Your task to perform on an android device: turn off priority inbox in the gmail app Image 0: 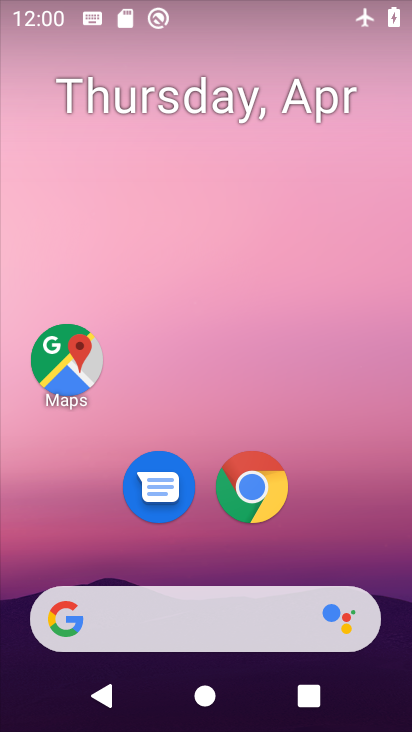
Step 0: drag from (246, 619) to (190, 127)
Your task to perform on an android device: turn off priority inbox in the gmail app Image 1: 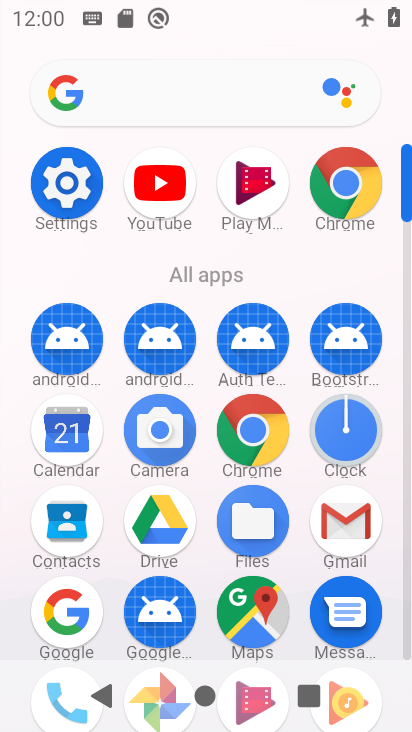
Step 1: click (340, 535)
Your task to perform on an android device: turn off priority inbox in the gmail app Image 2: 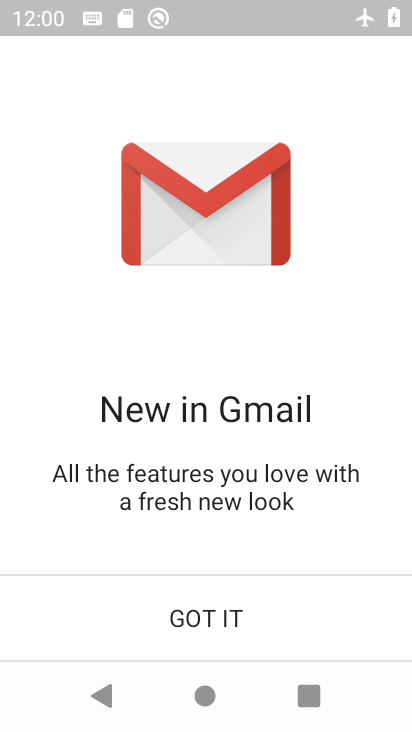
Step 2: click (221, 603)
Your task to perform on an android device: turn off priority inbox in the gmail app Image 3: 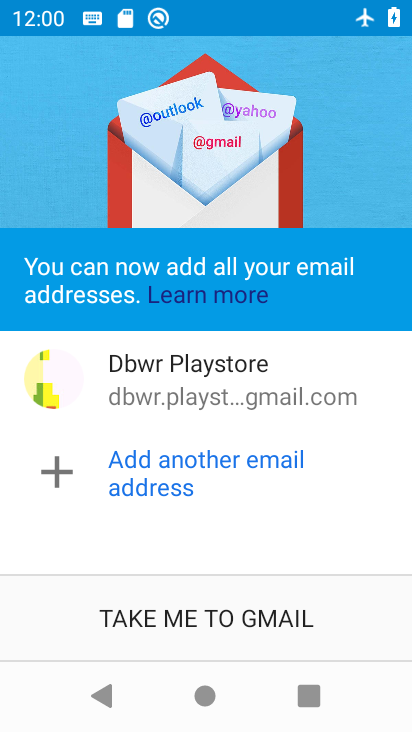
Step 3: click (224, 602)
Your task to perform on an android device: turn off priority inbox in the gmail app Image 4: 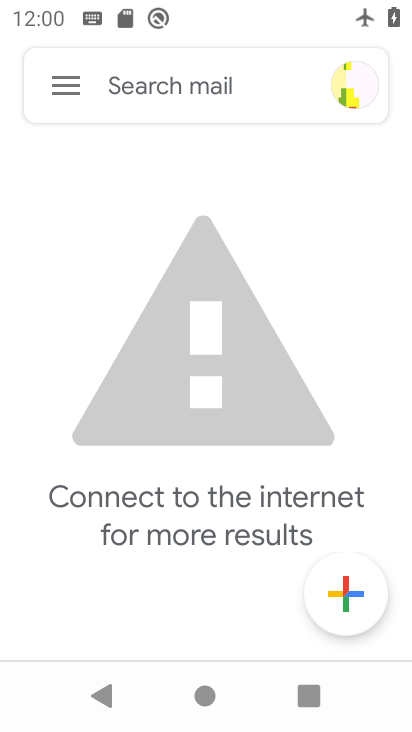
Step 4: click (84, 81)
Your task to perform on an android device: turn off priority inbox in the gmail app Image 5: 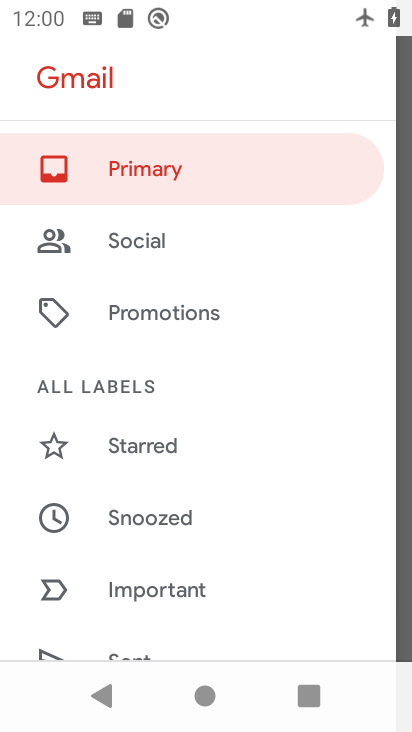
Step 5: drag from (149, 546) to (259, 260)
Your task to perform on an android device: turn off priority inbox in the gmail app Image 6: 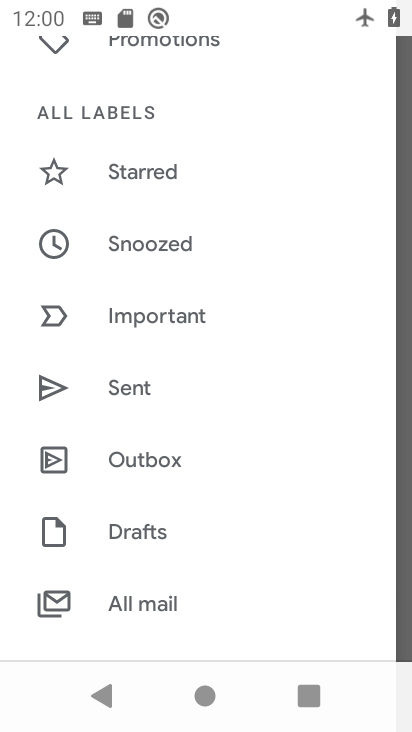
Step 6: drag from (162, 560) to (251, 279)
Your task to perform on an android device: turn off priority inbox in the gmail app Image 7: 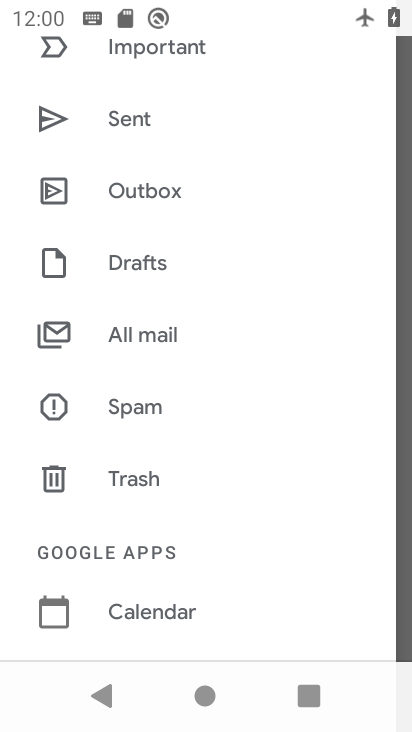
Step 7: drag from (167, 506) to (231, 263)
Your task to perform on an android device: turn off priority inbox in the gmail app Image 8: 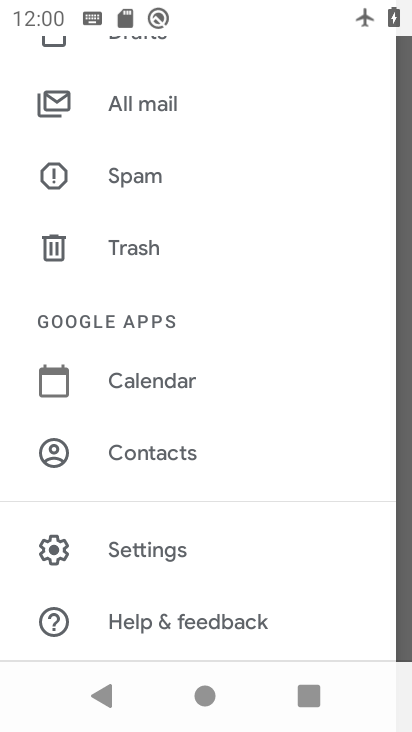
Step 8: click (149, 550)
Your task to perform on an android device: turn off priority inbox in the gmail app Image 9: 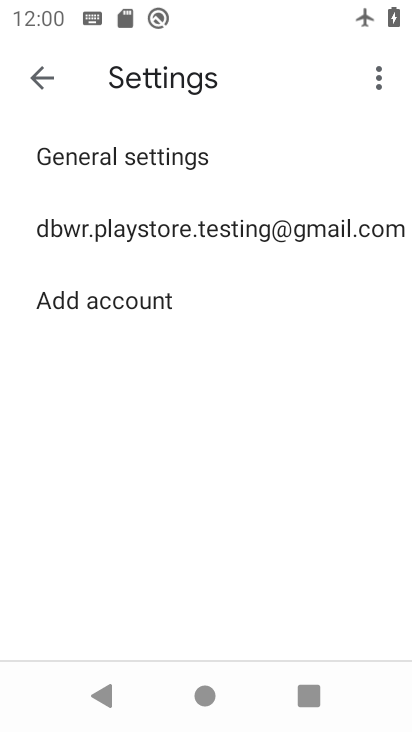
Step 9: click (109, 236)
Your task to perform on an android device: turn off priority inbox in the gmail app Image 10: 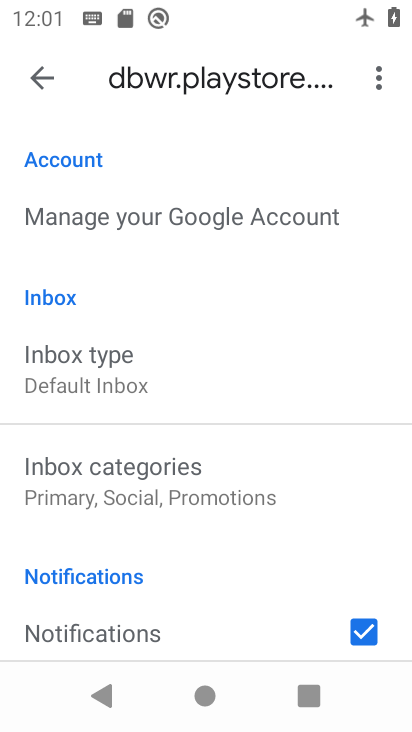
Step 10: click (99, 376)
Your task to perform on an android device: turn off priority inbox in the gmail app Image 11: 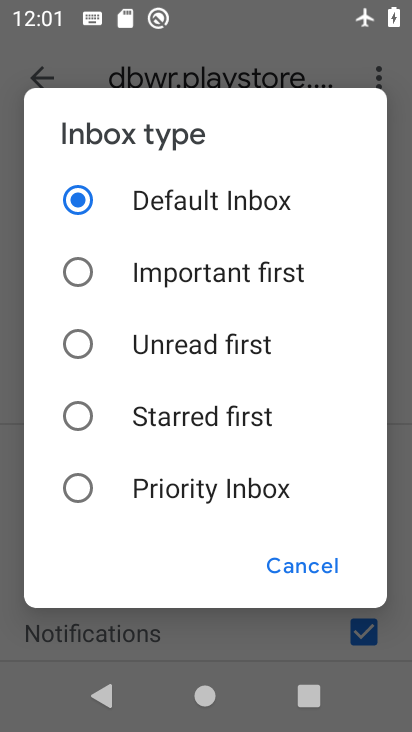
Step 11: task complete